Your task to perform on an android device: toggle javascript in the chrome app Image 0: 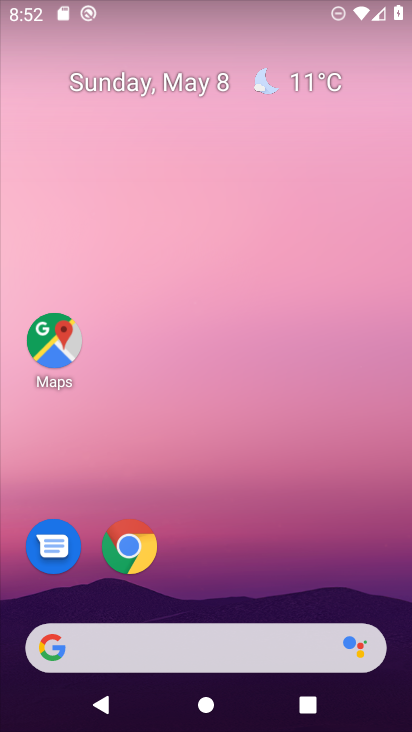
Step 0: click (122, 535)
Your task to perform on an android device: toggle javascript in the chrome app Image 1: 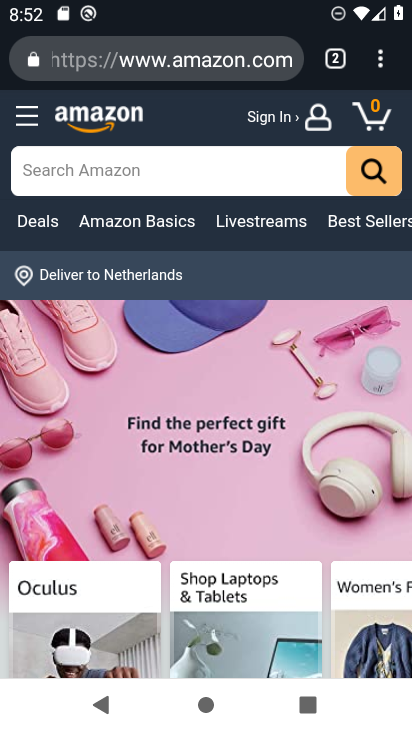
Step 1: click (373, 62)
Your task to perform on an android device: toggle javascript in the chrome app Image 2: 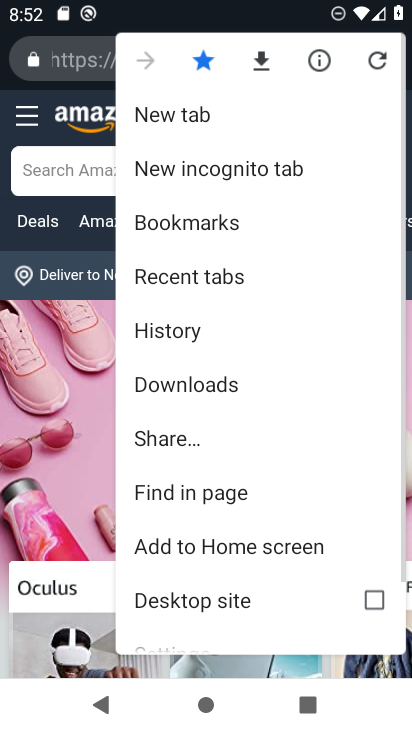
Step 2: drag from (308, 443) to (311, 191)
Your task to perform on an android device: toggle javascript in the chrome app Image 3: 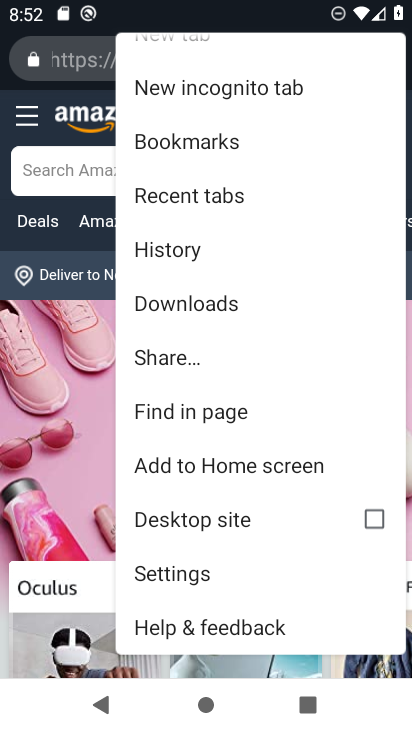
Step 3: click (163, 562)
Your task to perform on an android device: toggle javascript in the chrome app Image 4: 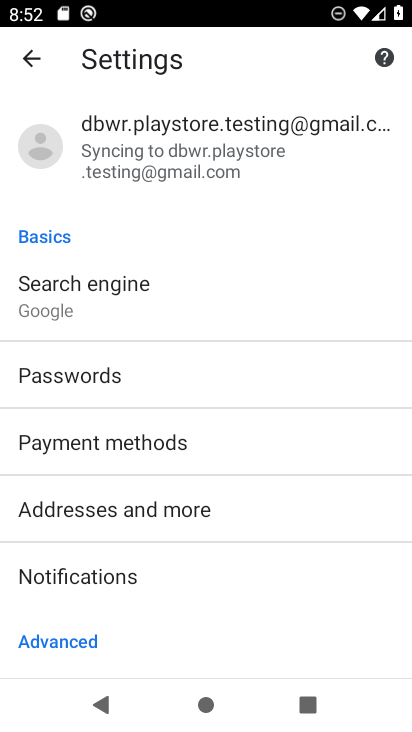
Step 4: drag from (224, 604) to (295, 207)
Your task to perform on an android device: toggle javascript in the chrome app Image 5: 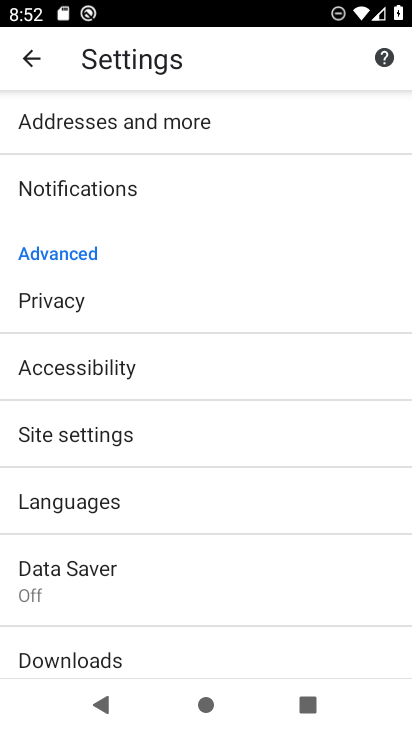
Step 5: click (211, 431)
Your task to perform on an android device: toggle javascript in the chrome app Image 6: 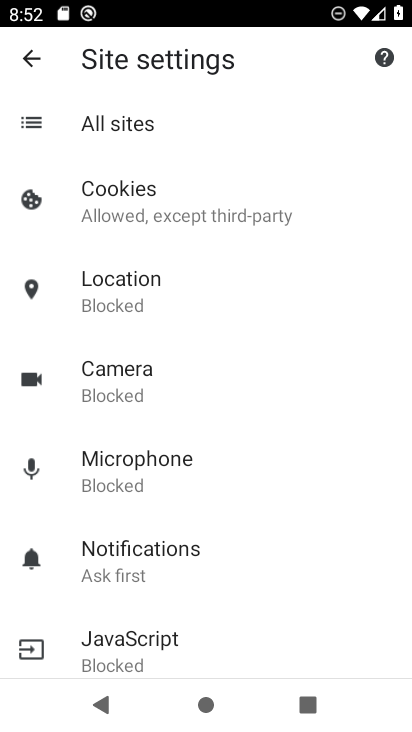
Step 6: click (200, 644)
Your task to perform on an android device: toggle javascript in the chrome app Image 7: 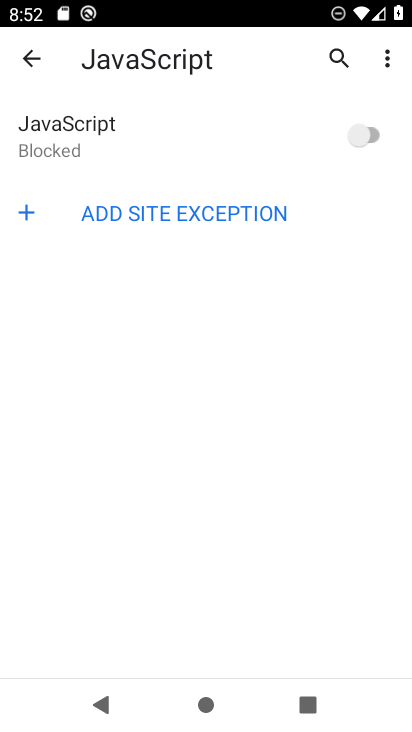
Step 7: click (369, 121)
Your task to perform on an android device: toggle javascript in the chrome app Image 8: 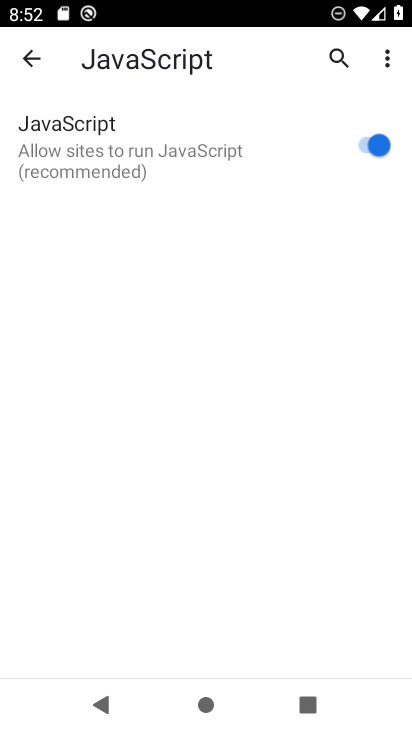
Step 8: task complete